Your task to perform on an android device: open app "WhatsApp Messenger" (install if not already installed) and enter user name: "cartons@outlook.com" and password: "approximated" Image 0: 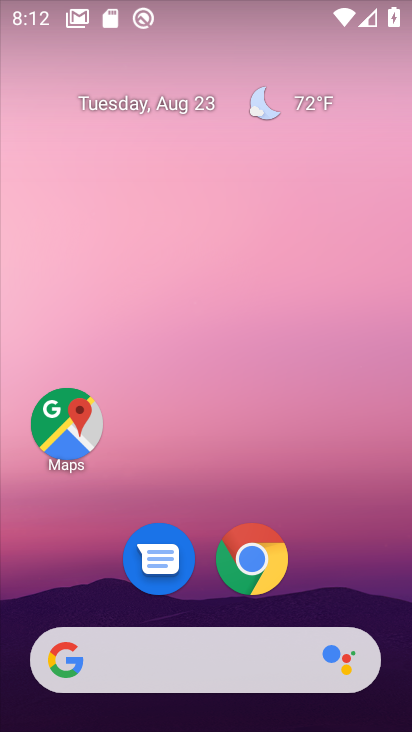
Step 0: drag from (216, 504) to (174, 120)
Your task to perform on an android device: open app "WhatsApp Messenger" (install if not already installed) and enter user name: "cartons@outlook.com" and password: "approximated" Image 1: 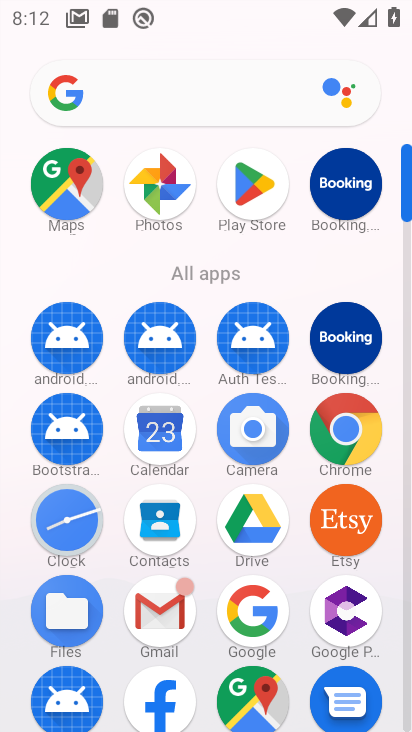
Step 1: click (257, 181)
Your task to perform on an android device: open app "WhatsApp Messenger" (install if not already installed) and enter user name: "cartons@outlook.com" and password: "approximated" Image 2: 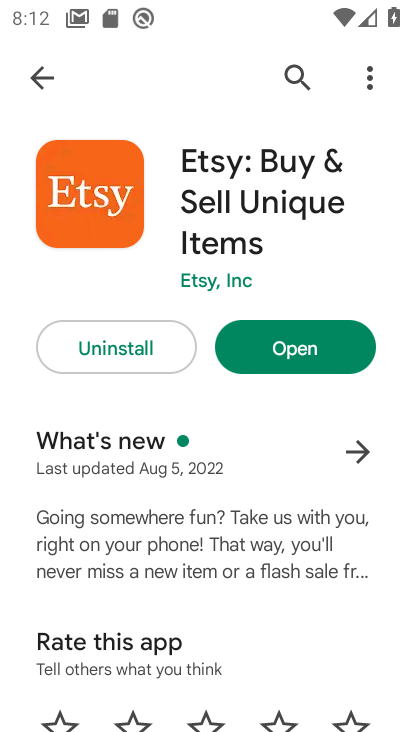
Step 2: click (291, 85)
Your task to perform on an android device: open app "WhatsApp Messenger" (install if not already installed) and enter user name: "cartons@outlook.com" and password: "approximated" Image 3: 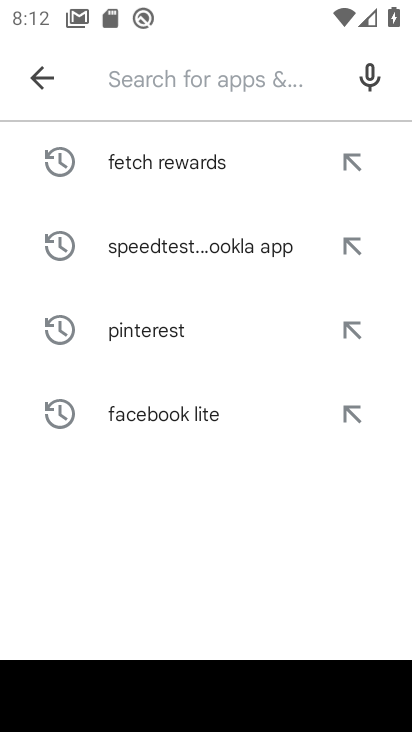
Step 3: type "WhatsApp Messenge"
Your task to perform on an android device: open app "WhatsApp Messenger" (install if not already installed) and enter user name: "cartons@outlook.com" and password: "approximated" Image 4: 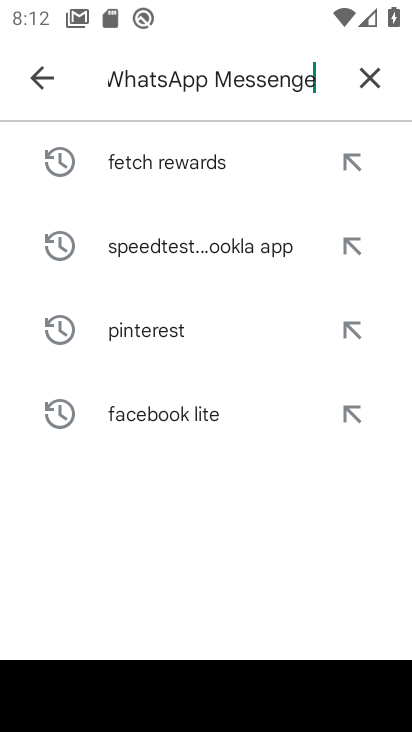
Step 4: type ""
Your task to perform on an android device: open app "WhatsApp Messenger" (install if not already installed) and enter user name: "cartons@outlook.com" and password: "approximated" Image 5: 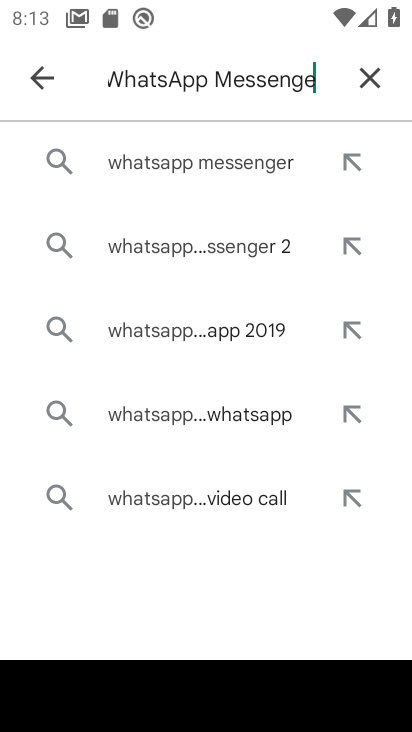
Step 5: click (226, 155)
Your task to perform on an android device: open app "WhatsApp Messenger" (install if not already installed) and enter user name: "cartons@outlook.com" and password: "approximated" Image 6: 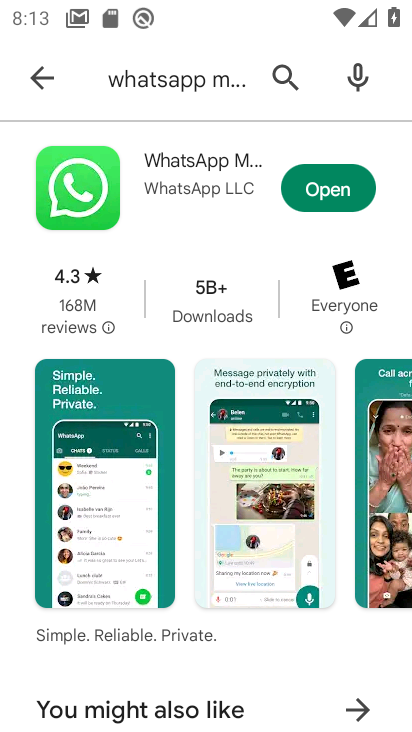
Step 6: click (300, 183)
Your task to perform on an android device: open app "WhatsApp Messenger" (install if not already installed) and enter user name: "cartons@outlook.com" and password: "approximated" Image 7: 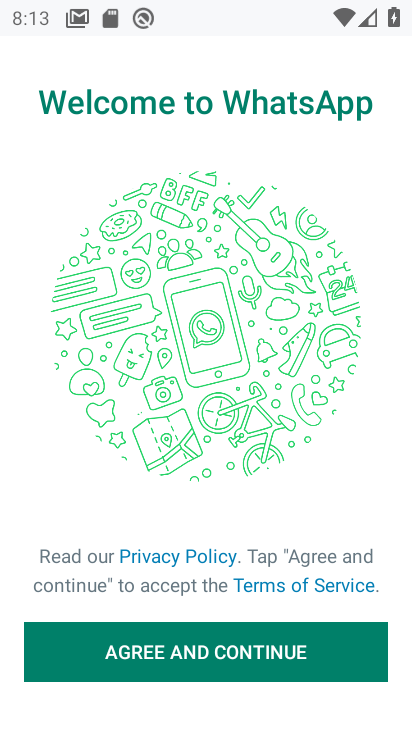
Step 7: task complete